Your task to perform on an android device: check google app version Image 0: 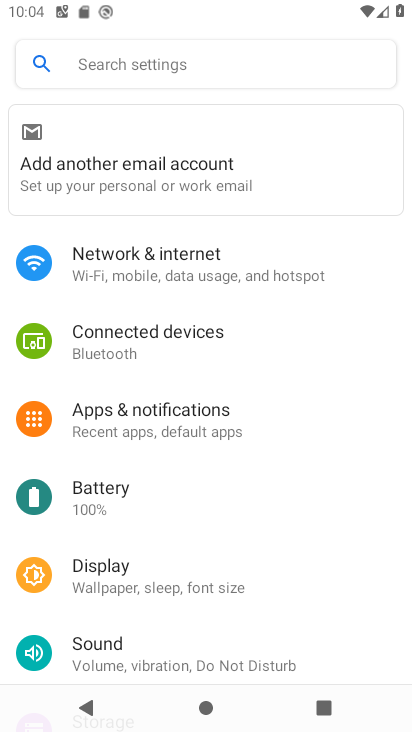
Step 0: press home button
Your task to perform on an android device: check google app version Image 1: 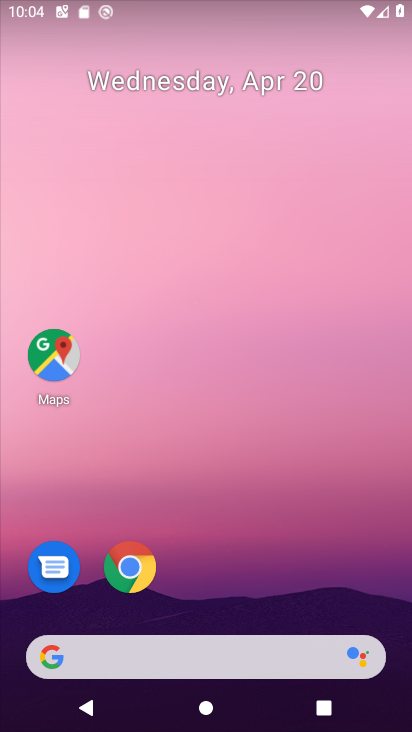
Step 1: drag from (304, 581) to (321, 210)
Your task to perform on an android device: check google app version Image 2: 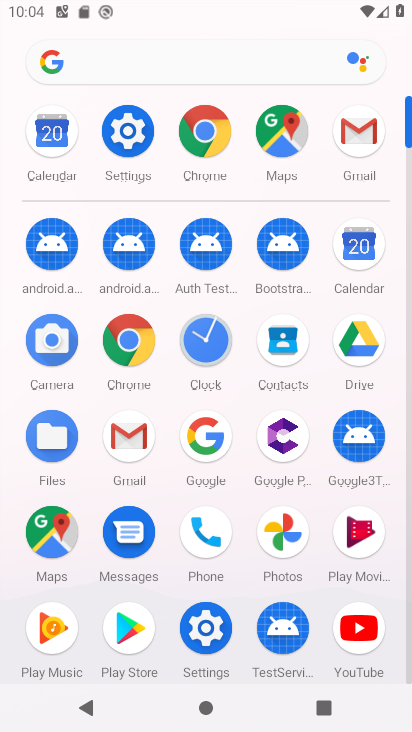
Step 2: click (215, 443)
Your task to perform on an android device: check google app version Image 3: 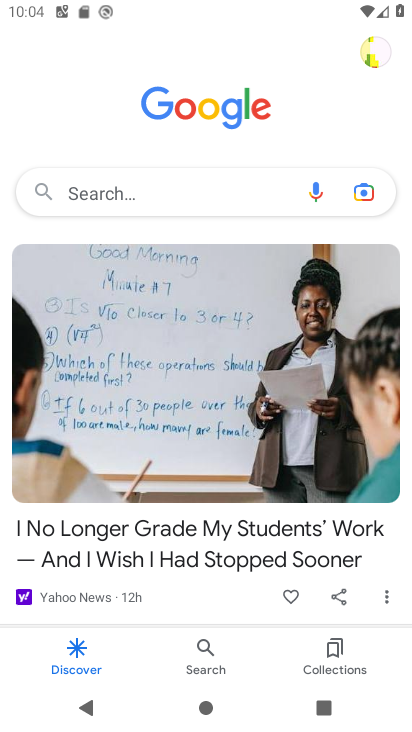
Step 3: click (373, 62)
Your task to perform on an android device: check google app version Image 4: 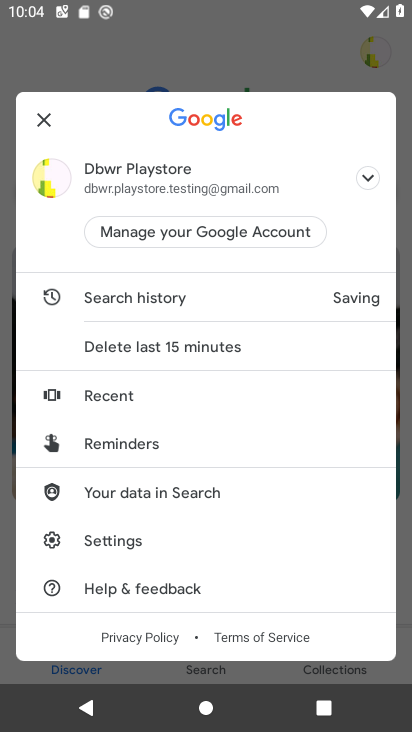
Step 4: click (141, 542)
Your task to perform on an android device: check google app version Image 5: 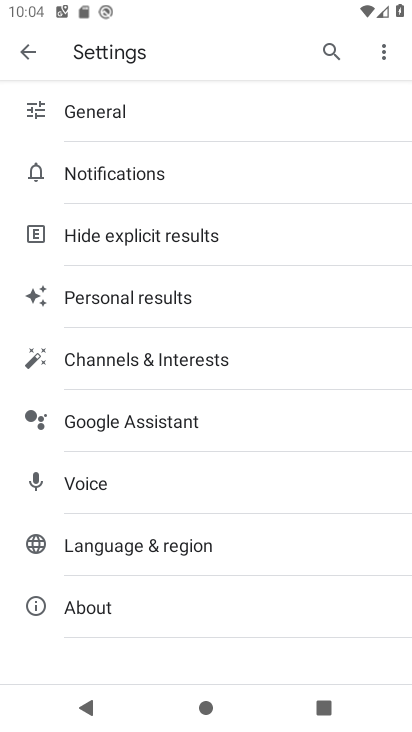
Step 5: click (110, 608)
Your task to perform on an android device: check google app version Image 6: 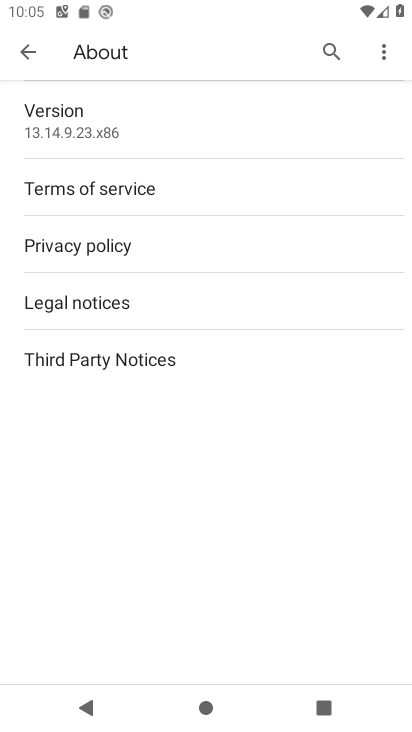
Step 6: task complete